Your task to perform on an android device: Open the web browser Image 0: 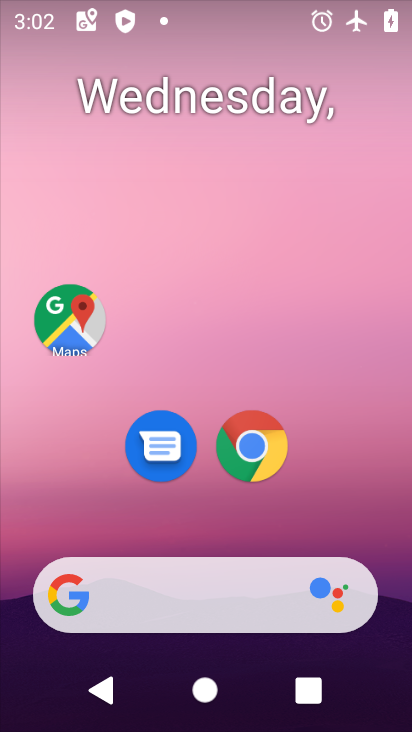
Step 0: click (265, 464)
Your task to perform on an android device: Open the web browser Image 1: 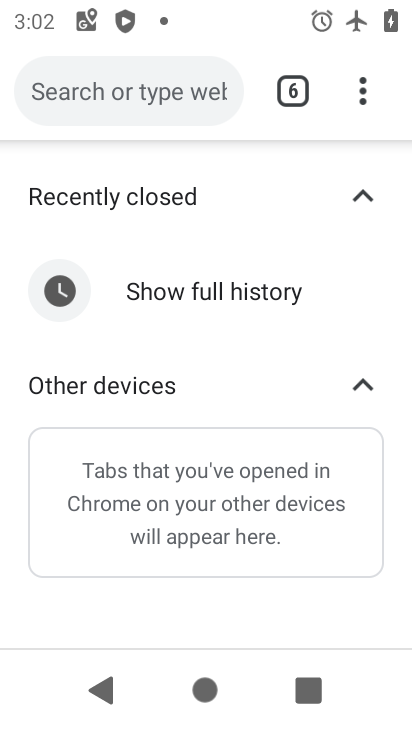
Step 1: task complete